Your task to perform on an android device: What's on my calendar tomorrow? Image 0: 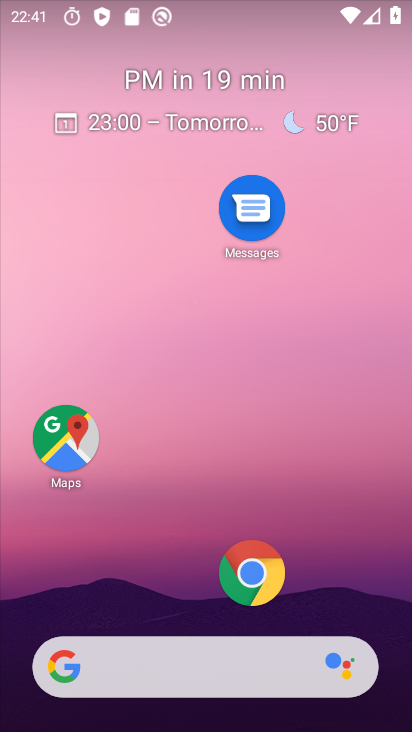
Step 0: drag from (163, 560) to (180, 102)
Your task to perform on an android device: What's on my calendar tomorrow? Image 1: 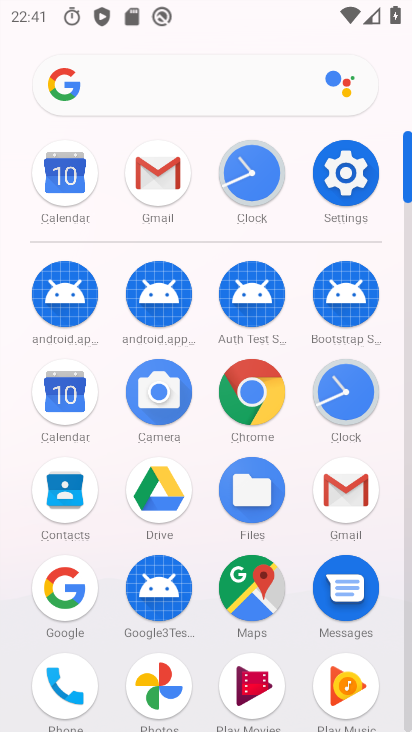
Step 1: click (60, 392)
Your task to perform on an android device: What's on my calendar tomorrow? Image 2: 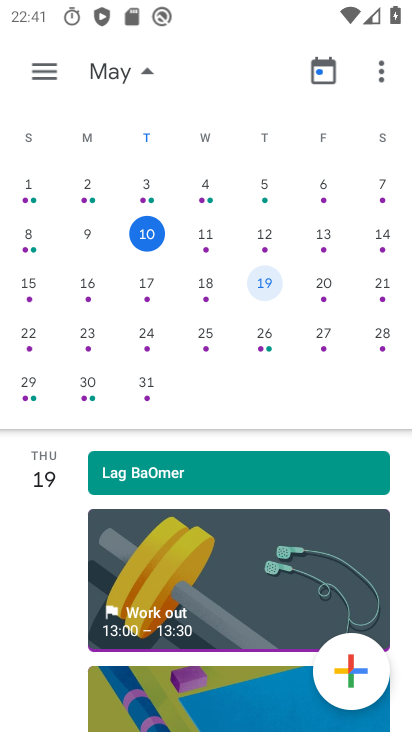
Step 2: click (202, 239)
Your task to perform on an android device: What's on my calendar tomorrow? Image 3: 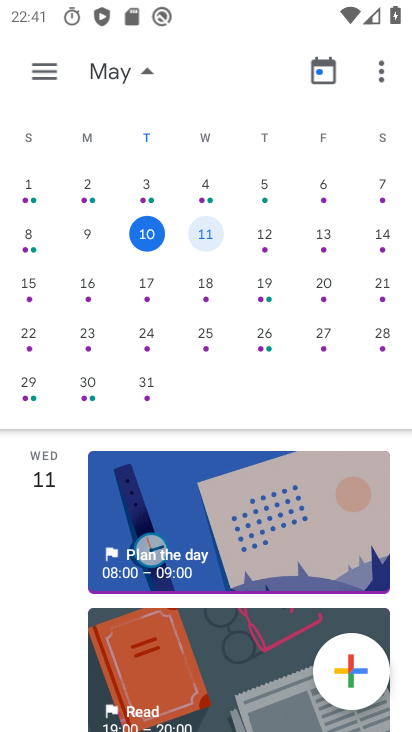
Step 3: task complete